Your task to perform on an android device: turn on showing notifications on the lock screen Image 0: 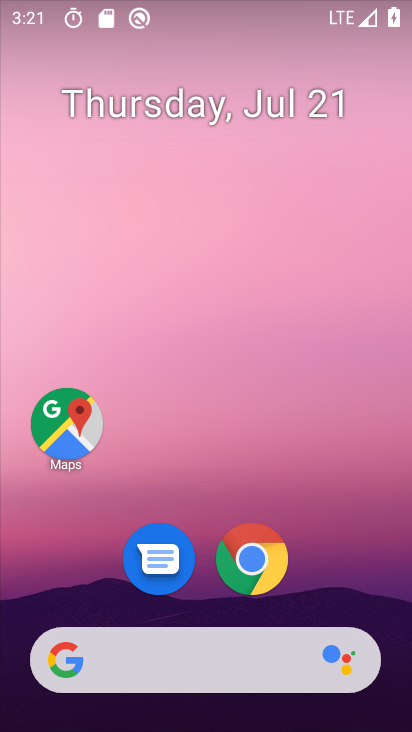
Step 0: drag from (366, 558) to (389, 63)
Your task to perform on an android device: turn on showing notifications on the lock screen Image 1: 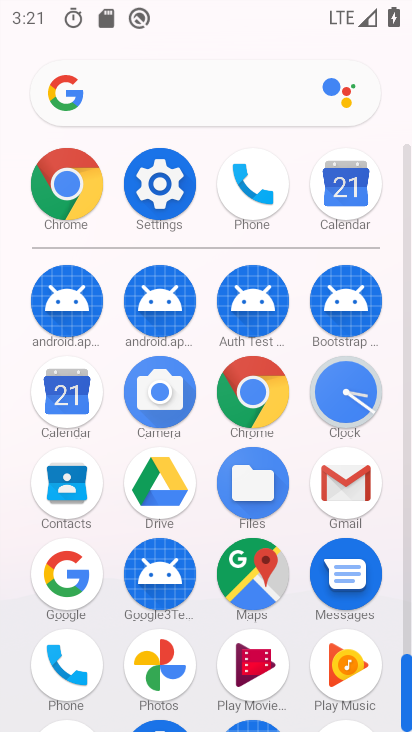
Step 1: click (176, 191)
Your task to perform on an android device: turn on showing notifications on the lock screen Image 2: 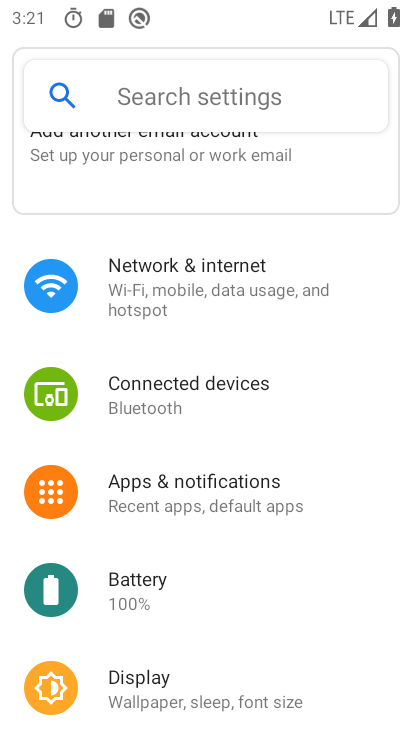
Step 2: drag from (346, 571) to (348, 434)
Your task to perform on an android device: turn on showing notifications on the lock screen Image 3: 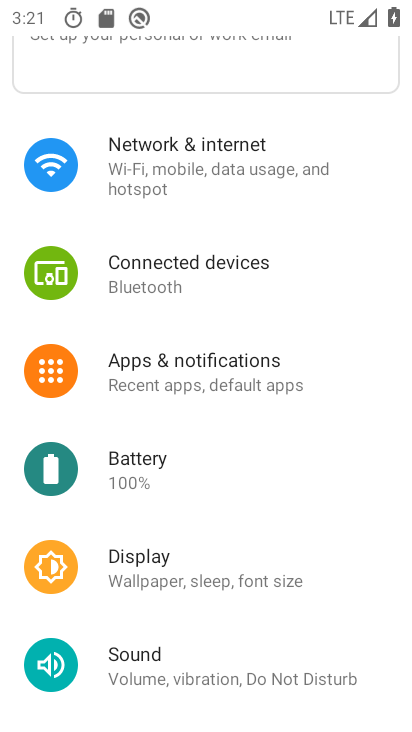
Step 3: drag from (360, 518) to (359, 413)
Your task to perform on an android device: turn on showing notifications on the lock screen Image 4: 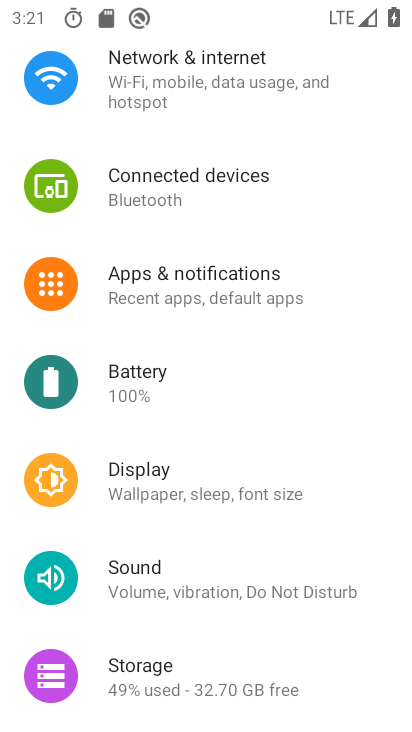
Step 4: drag from (352, 534) to (345, 469)
Your task to perform on an android device: turn on showing notifications on the lock screen Image 5: 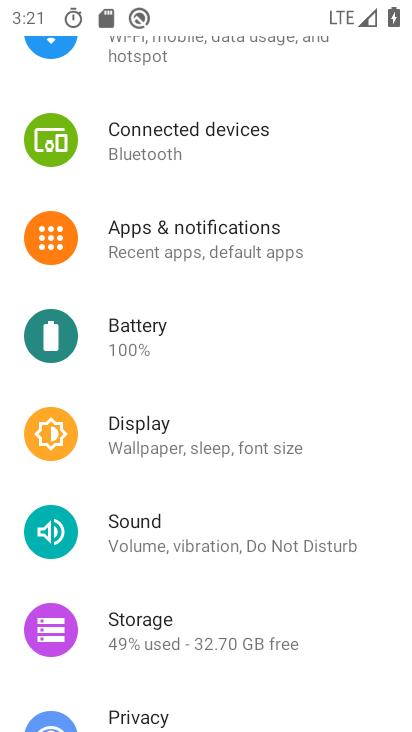
Step 5: drag from (347, 579) to (348, 512)
Your task to perform on an android device: turn on showing notifications on the lock screen Image 6: 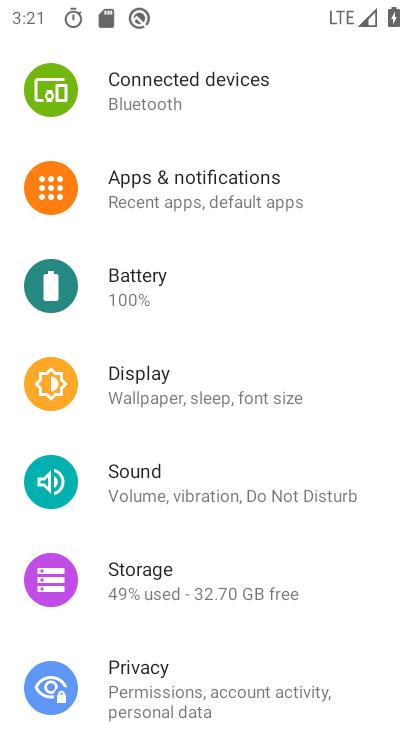
Step 6: drag from (348, 564) to (346, 504)
Your task to perform on an android device: turn on showing notifications on the lock screen Image 7: 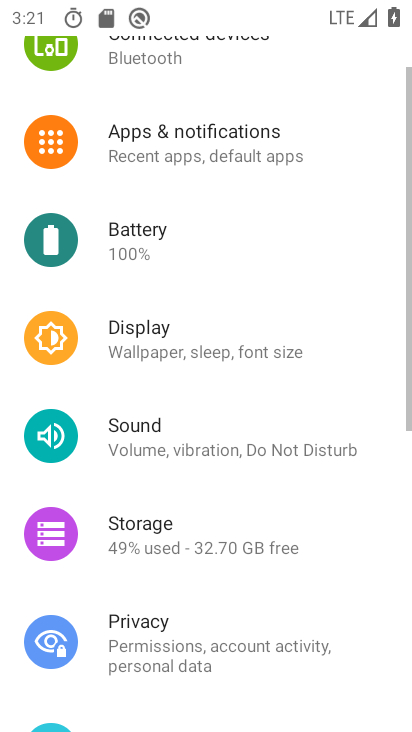
Step 7: drag from (351, 557) to (351, 490)
Your task to perform on an android device: turn on showing notifications on the lock screen Image 8: 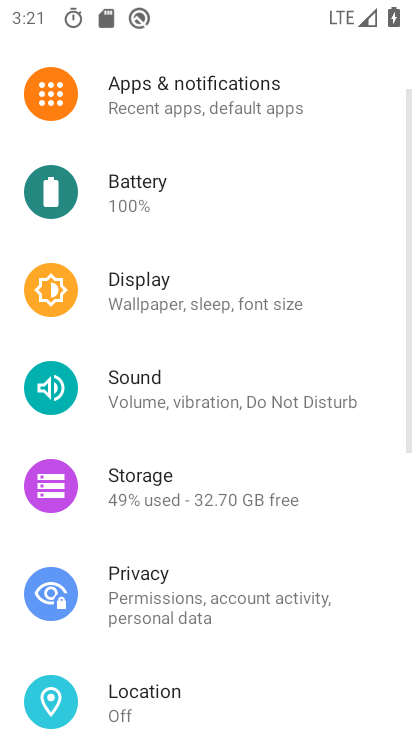
Step 8: drag from (362, 563) to (365, 443)
Your task to perform on an android device: turn on showing notifications on the lock screen Image 9: 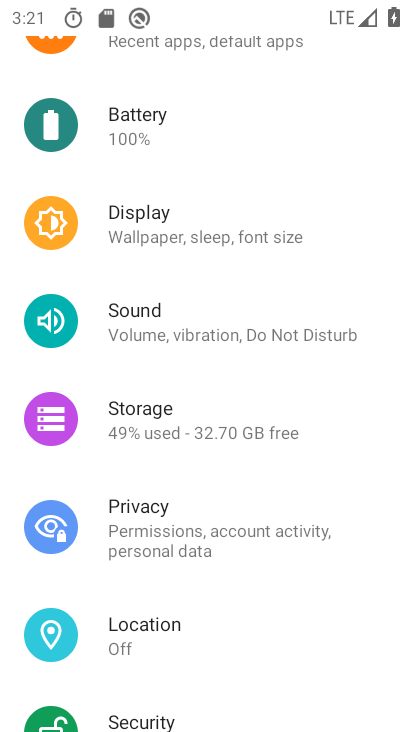
Step 9: drag from (362, 514) to (361, 454)
Your task to perform on an android device: turn on showing notifications on the lock screen Image 10: 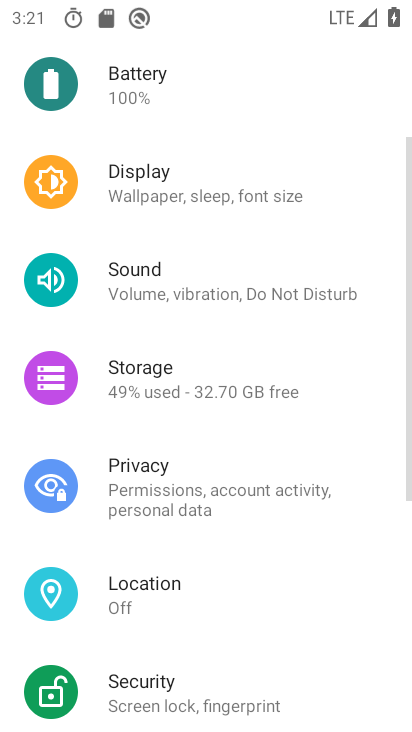
Step 10: drag from (354, 527) to (348, 438)
Your task to perform on an android device: turn on showing notifications on the lock screen Image 11: 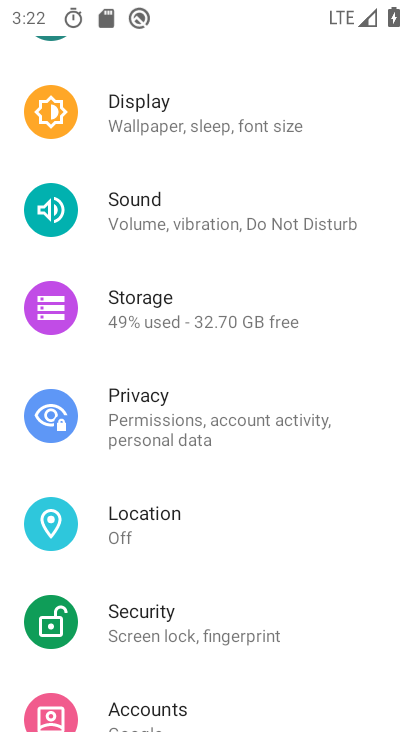
Step 11: drag from (346, 536) to (346, 457)
Your task to perform on an android device: turn on showing notifications on the lock screen Image 12: 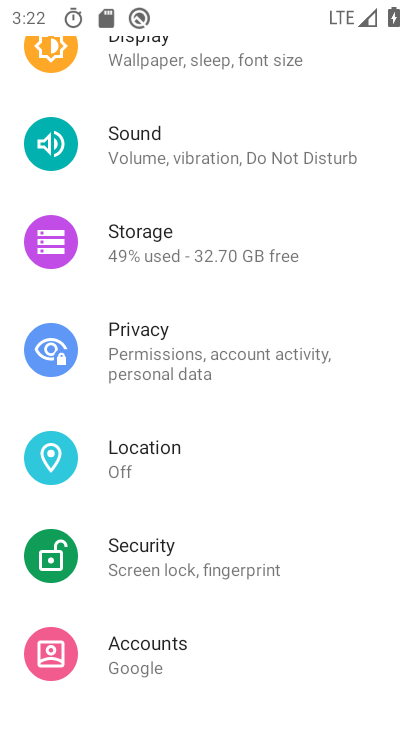
Step 12: drag from (346, 516) to (346, 453)
Your task to perform on an android device: turn on showing notifications on the lock screen Image 13: 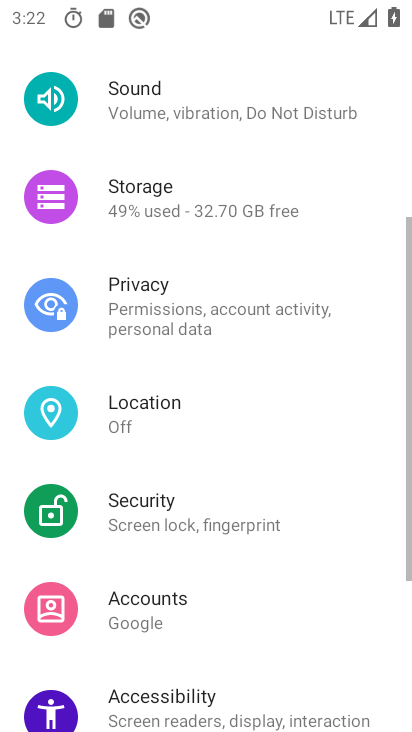
Step 13: drag from (345, 376) to (348, 466)
Your task to perform on an android device: turn on showing notifications on the lock screen Image 14: 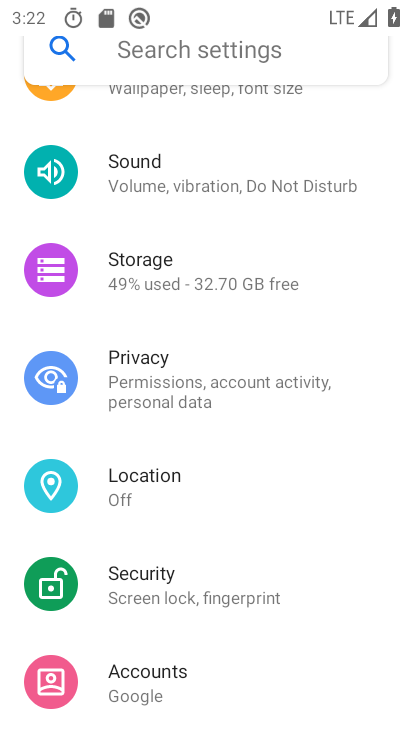
Step 14: drag from (343, 322) to (344, 443)
Your task to perform on an android device: turn on showing notifications on the lock screen Image 15: 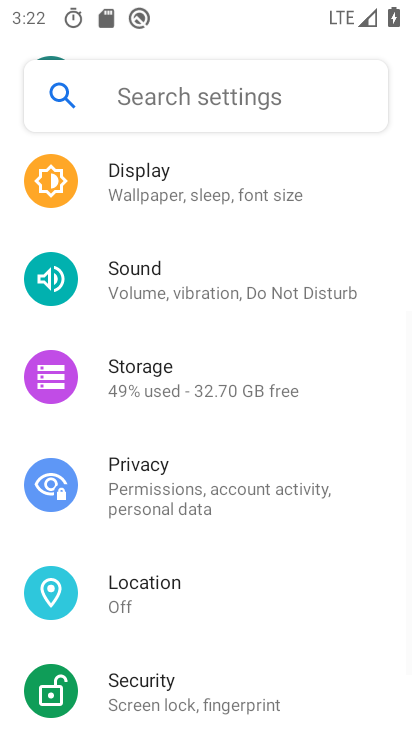
Step 15: drag from (357, 324) to (360, 436)
Your task to perform on an android device: turn on showing notifications on the lock screen Image 16: 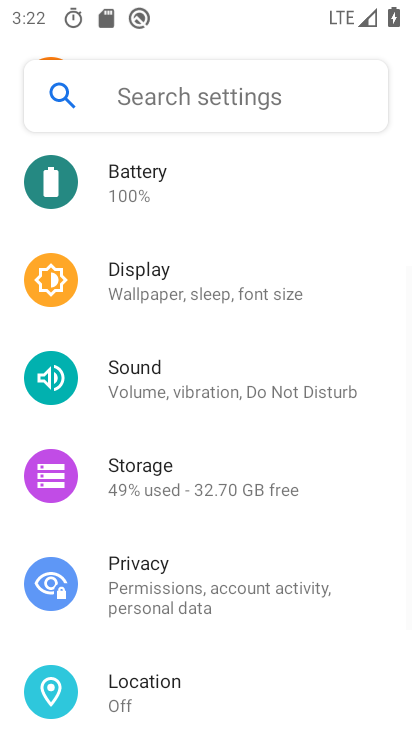
Step 16: drag from (360, 294) to (360, 395)
Your task to perform on an android device: turn on showing notifications on the lock screen Image 17: 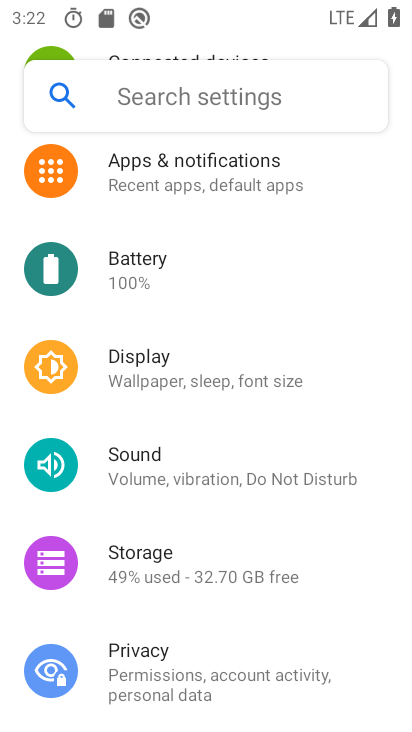
Step 17: drag from (353, 303) to (353, 417)
Your task to perform on an android device: turn on showing notifications on the lock screen Image 18: 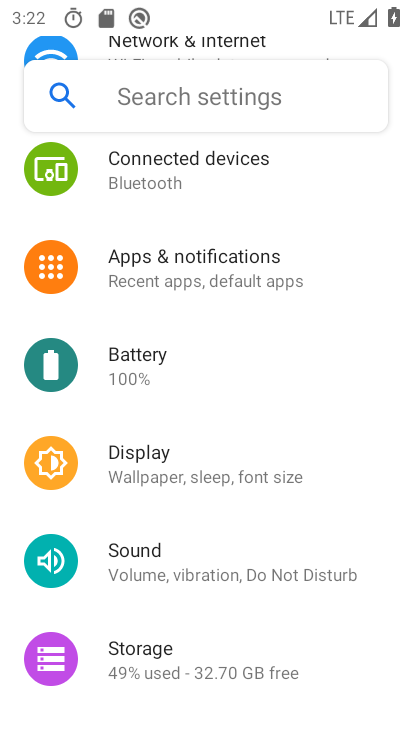
Step 18: drag from (342, 324) to (344, 434)
Your task to perform on an android device: turn on showing notifications on the lock screen Image 19: 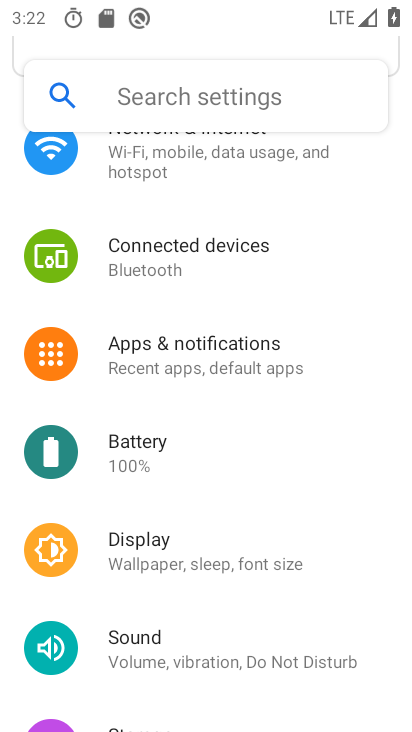
Step 19: drag from (336, 302) to (336, 445)
Your task to perform on an android device: turn on showing notifications on the lock screen Image 20: 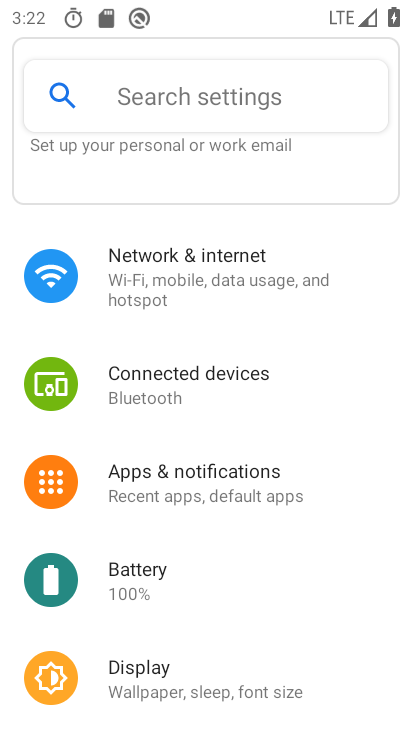
Step 20: click (311, 479)
Your task to perform on an android device: turn on showing notifications on the lock screen Image 21: 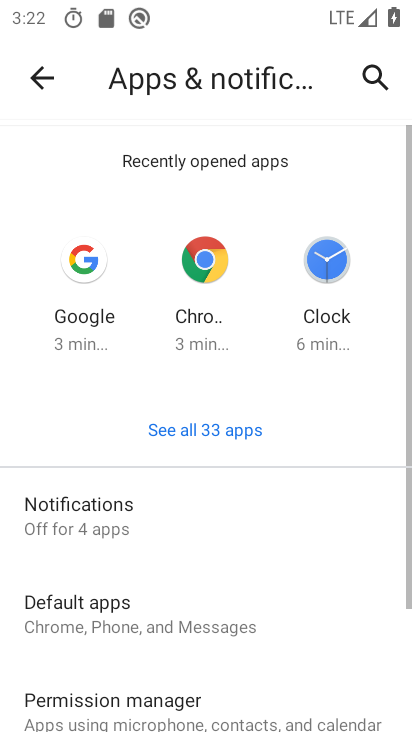
Step 21: drag from (303, 519) to (305, 443)
Your task to perform on an android device: turn on showing notifications on the lock screen Image 22: 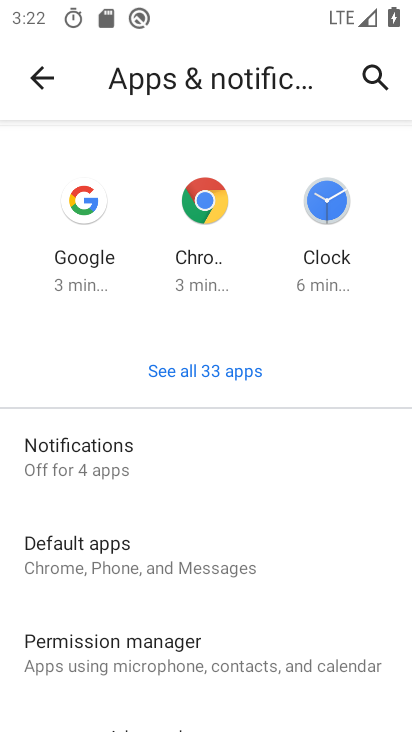
Step 22: drag from (309, 503) to (312, 419)
Your task to perform on an android device: turn on showing notifications on the lock screen Image 23: 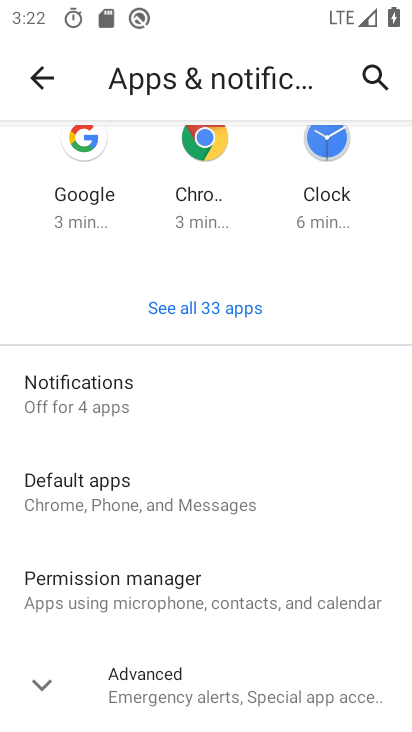
Step 23: click (196, 394)
Your task to perform on an android device: turn on showing notifications on the lock screen Image 24: 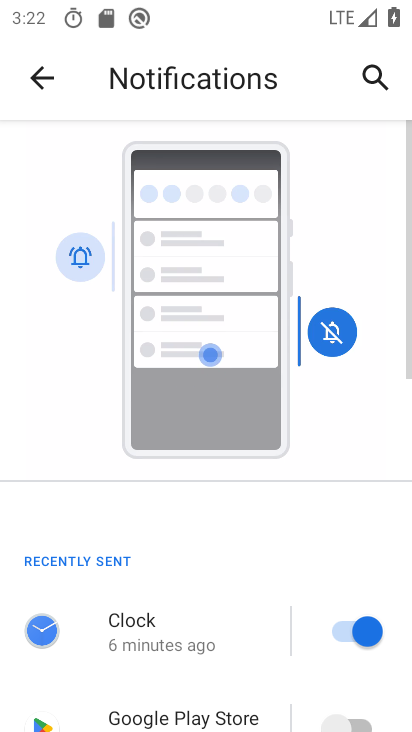
Step 24: drag from (317, 522) to (316, 436)
Your task to perform on an android device: turn on showing notifications on the lock screen Image 25: 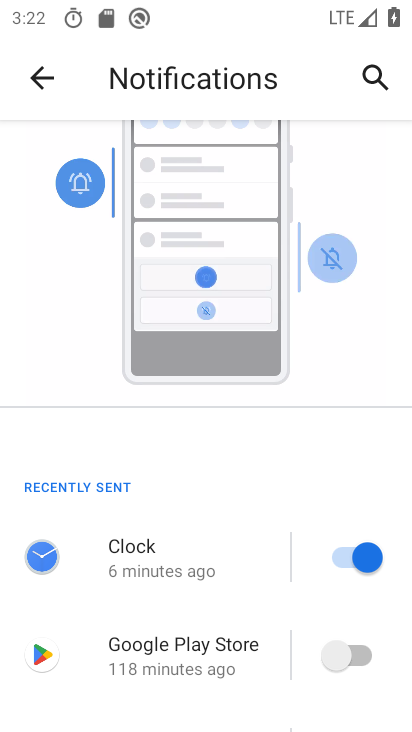
Step 25: drag from (237, 516) to (237, 418)
Your task to perform on an android device: turn on showing notifications on the lock screen Image 26: 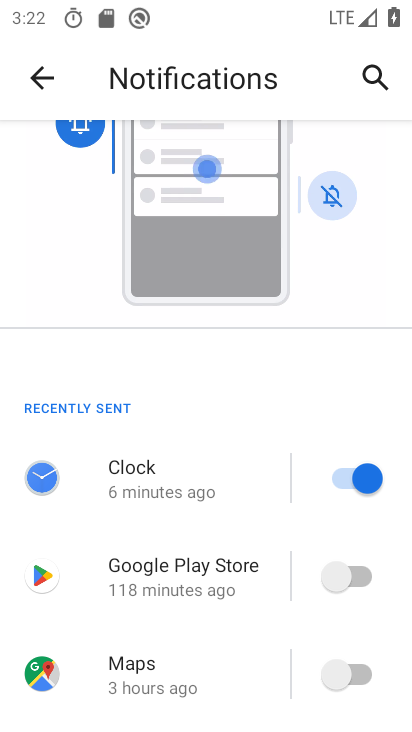
Step 26: drag from (241, 520) to (241, 436)
Your task to perform on an android device: turn on showing notifications on the lock screen Image 27: 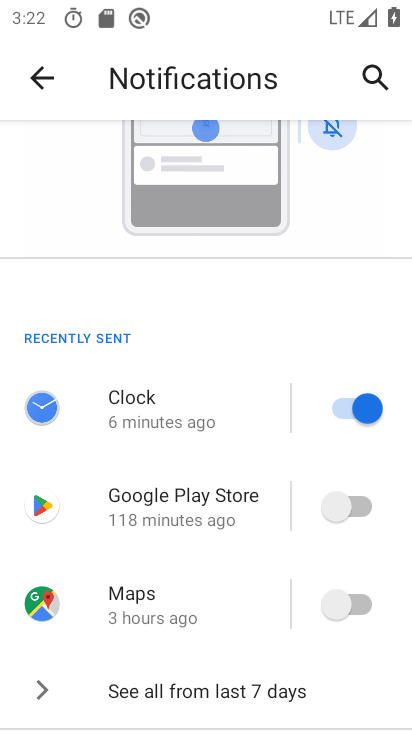
Step 27: drag from (239, 550) to (241, 448)
Your task to perform on an android device: turn on showing notifications on the lock screen Image 28: 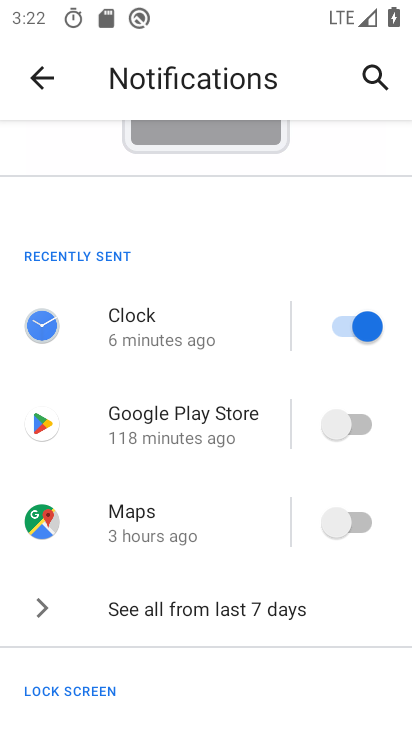
Step 28: drag from (243, 541) to (243, 444)
Your task to perform on an android device: turn on showing notifications on the lock screen Image 29: 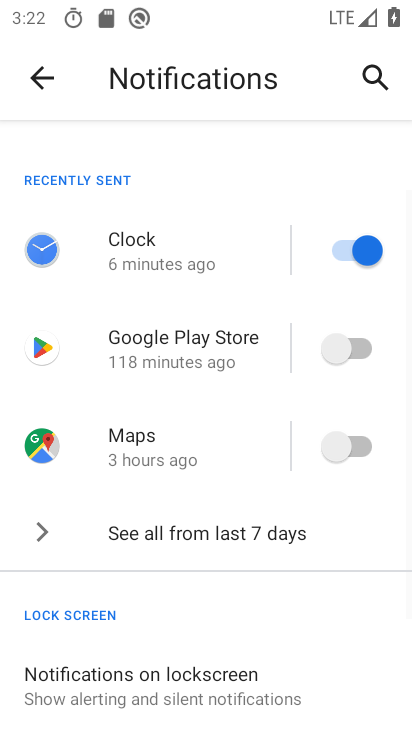
Step 29: drag from (243, 533) to (269, 585)
Your task to perform on an android device: turn on showing notifications on the lock screen Image 30: 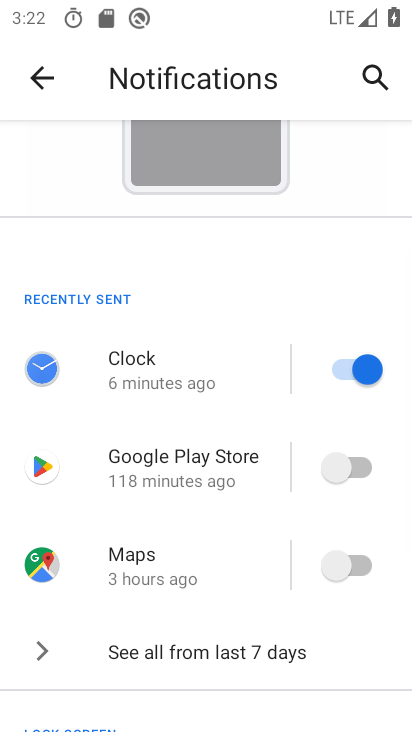
Step 30: drag from (266, 583) to (255, 409)
Your task to perform on an android device: turn on showing notifications on the lock screen Image 31: 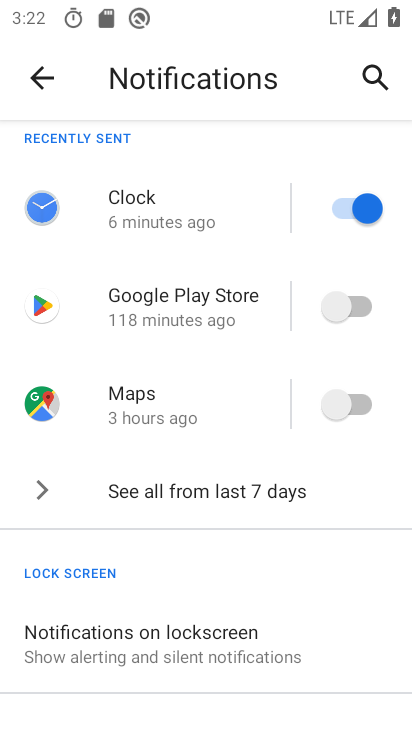
Step 31: click (233, 638)
Your task to perform on an android device: turn on showing notifications on the lock screen Image 32: 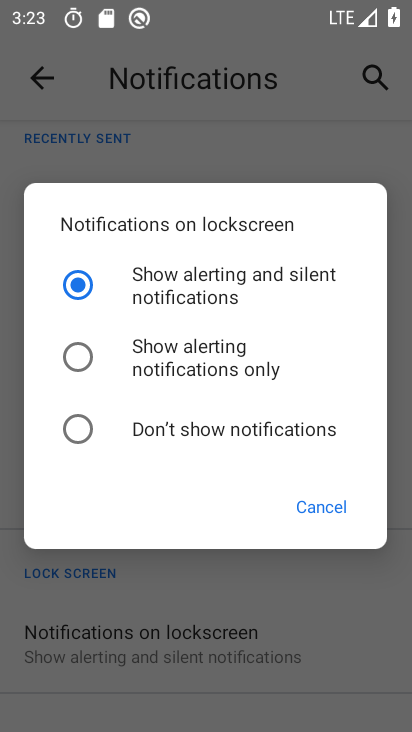
Step 32: task complete